Your task to perform on an android device: Do I have any events today? Image 0: 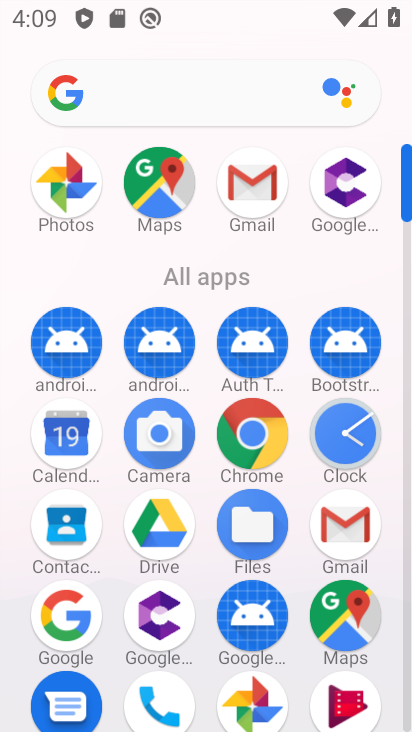
Step 0: drag from (212, 564) to (223, 232)
Your task to perform on an android device: Do I have any events today? Image 1: 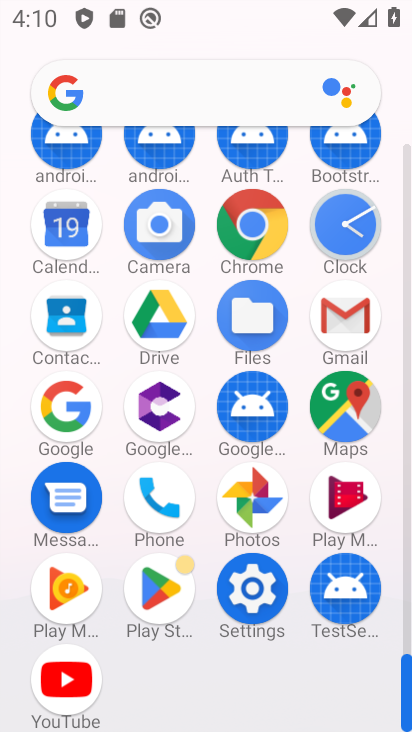
Step 1: click (73, 229)
Your task to perform on an android device: Do I have any events today? Image 2: 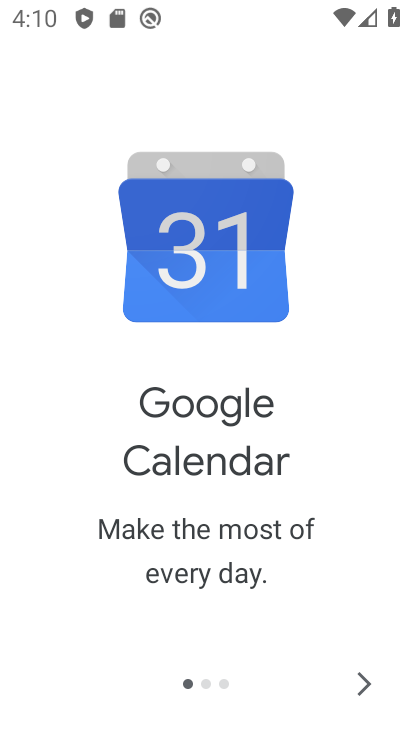
Step 2: click (373, 683)
Your task to perform on an android device: Do I have any events today? Image 3: 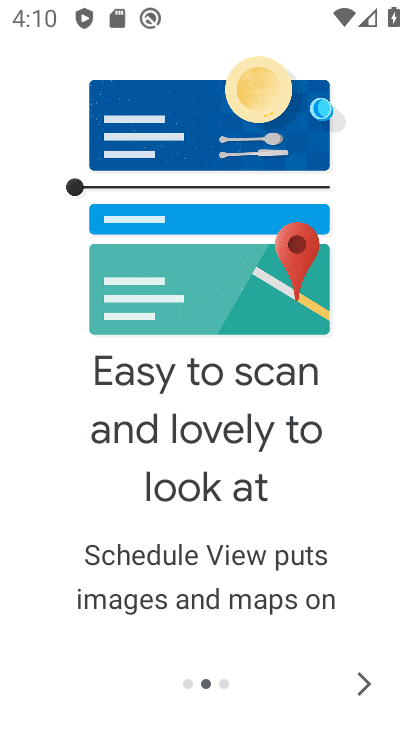
Step 3: click (373, 680)
Your task to perform on an android device: Do I have any events today? Image 4: 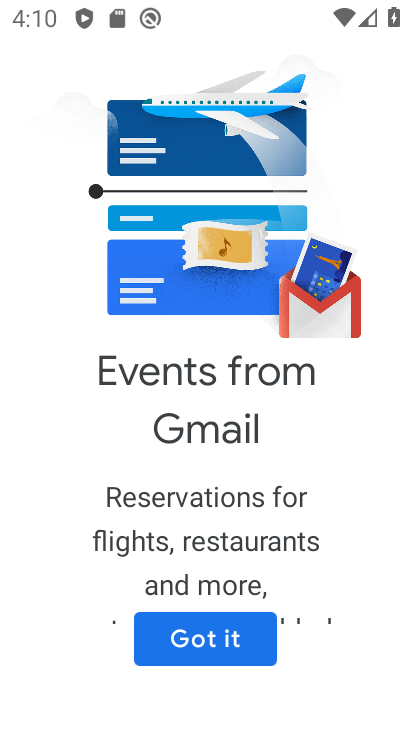
Step 4: click (213, 670)
Your task to perform on an android device: Do I have any events today? Image 5: 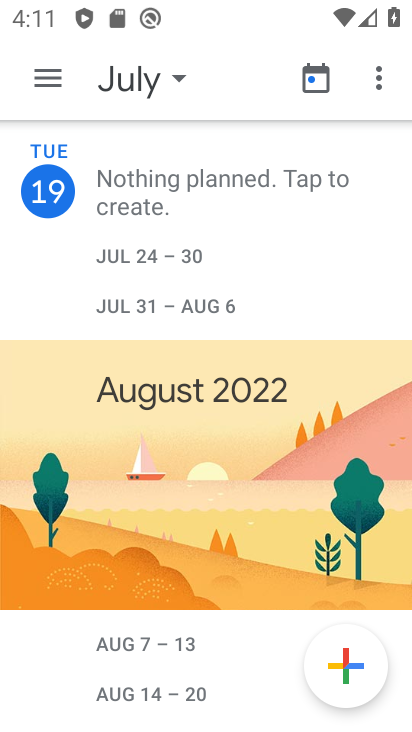
Step 5: task complete